Your task to perform on an android device: turn on the 12-hour format for clock Image 0: 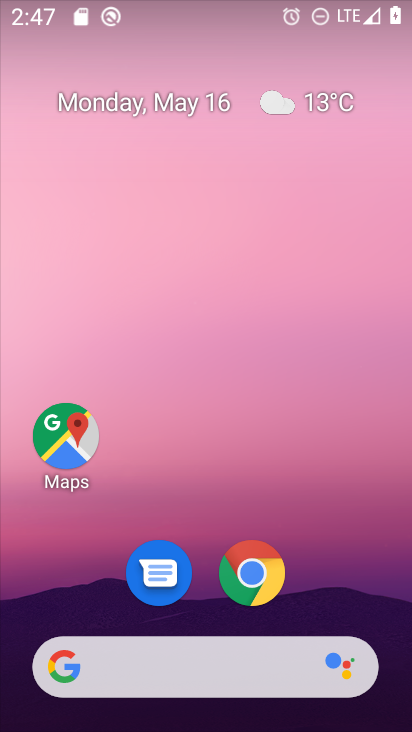
Step 0: drag from (197, 573) to (156, 62)
Your task to perform on an android device: turn on the 12-hour format for clock Image 1: 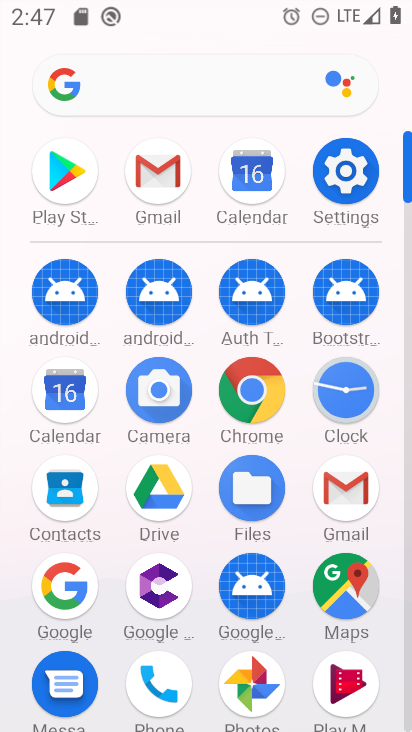
Step 1: click (330, 172)
Your task to perform on an android device: turn on the 12-hour format for clock Image 2: 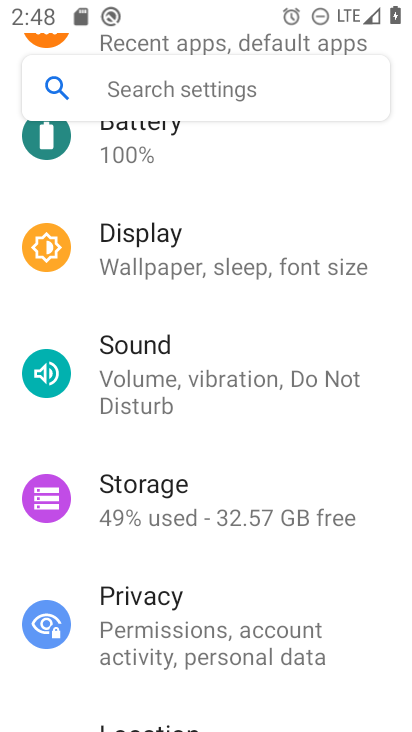
Step 2: drag from (139, 573) to (25, 18)
Your task to perform on an android device: turn on the 12-hour format for clock Image 3: 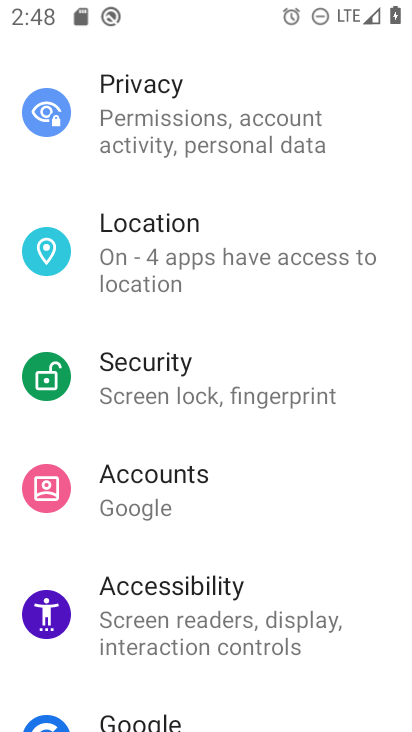
Step 3: drag from (193, 491) to (186, 53)
Your task to perform on an android device: turn on the 12-hour format for clock Image 4: 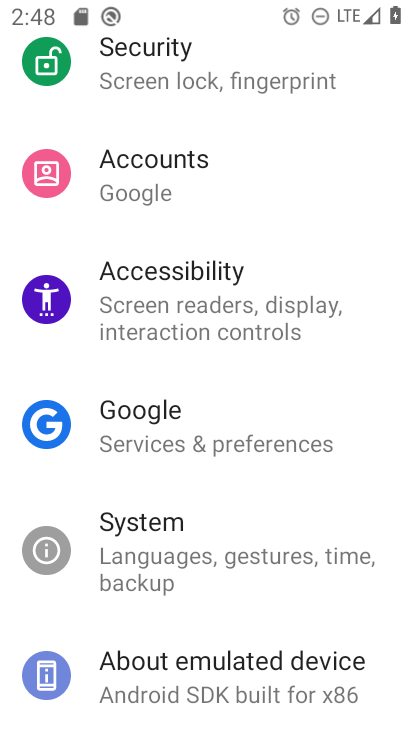
Step 4: click (180, 538)
Your task to perform on an android device: turn on the 12-hour format for clock Image 5: 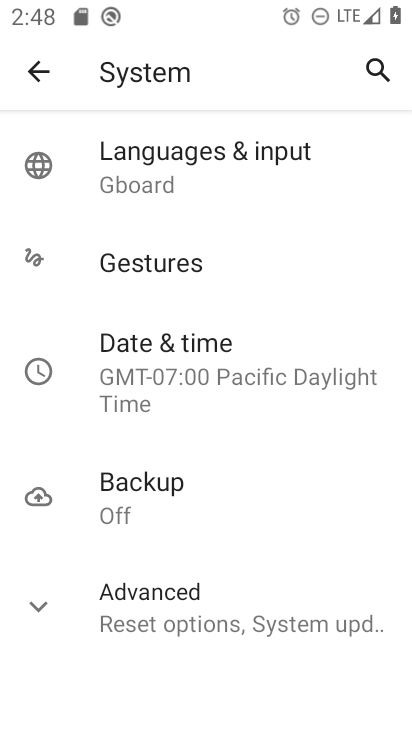
Step 5: click (235, 354)
Your task to perform on an android device: turn on the 12-hour format for clock Image 6: 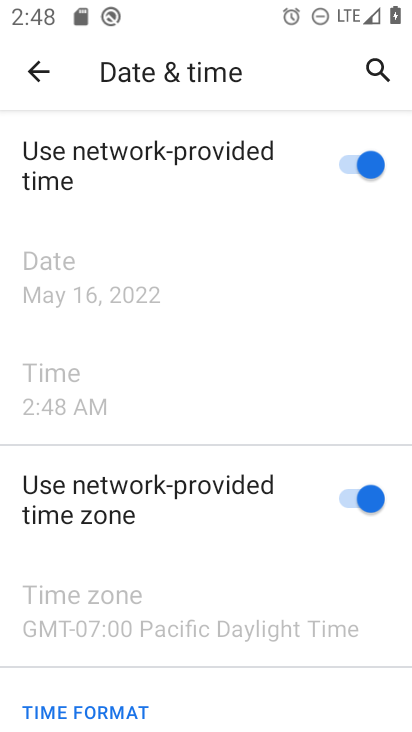
Step 6: task complete